Your task to perform on an android device: Open wifi settings Image 0: 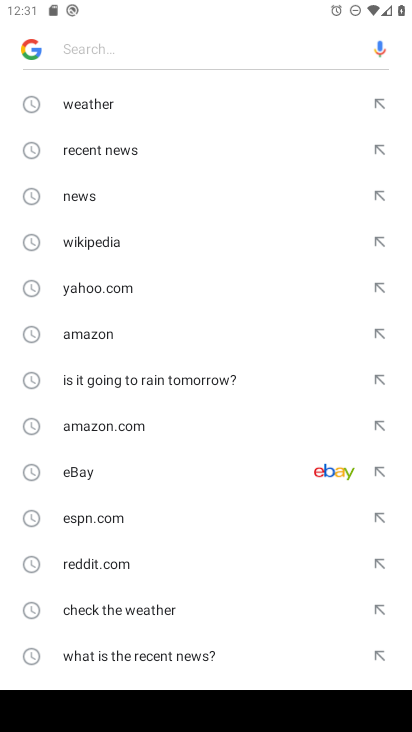
Step 0: press home button
Your task to perform on an android device: Open wifi settings Image 1: 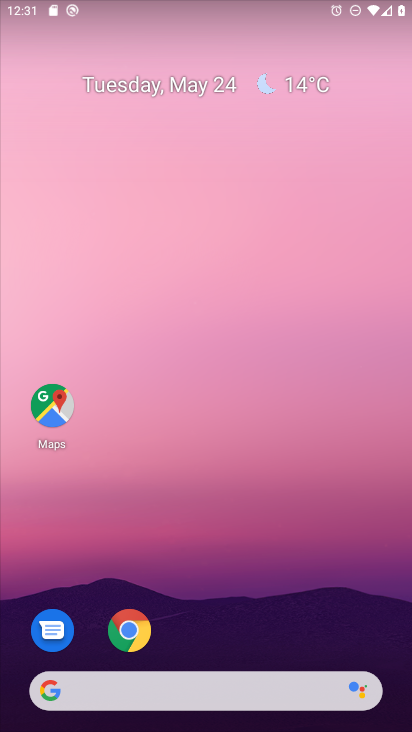
Step 1: drag from (378, 629) to (366, 85)
Your task to perform on an android device: Open wifi settings Image 2: 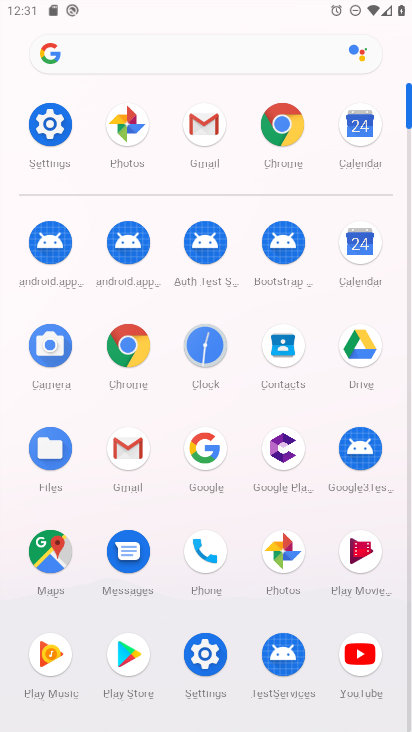
Step 2: click (45, 136)
Your task to perform on an android device: Open wifi settings Image 3: 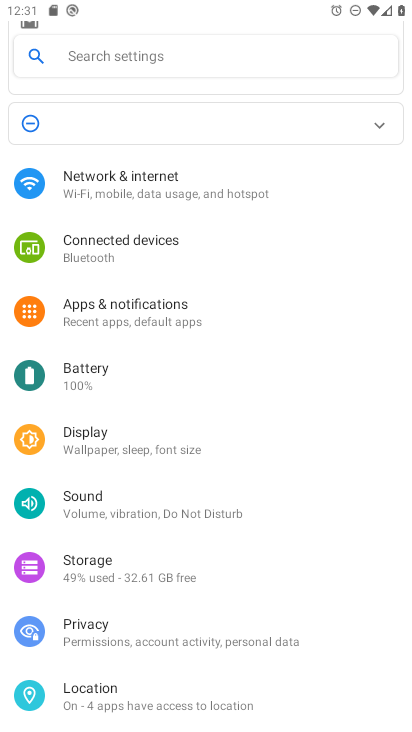
Step 3: drag from (294, 217) to (295, 423)
Your task to perform on an android device: Open wifi settings Image 4: 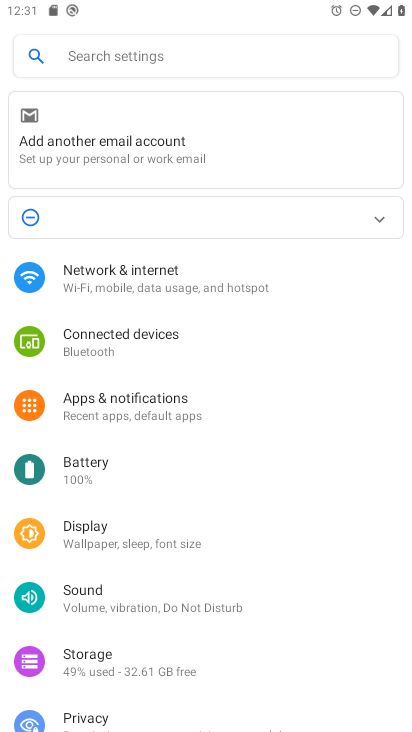
Step 4: click (205, 282)
Your task to perform on an android device: Open wifi settings Image 5: 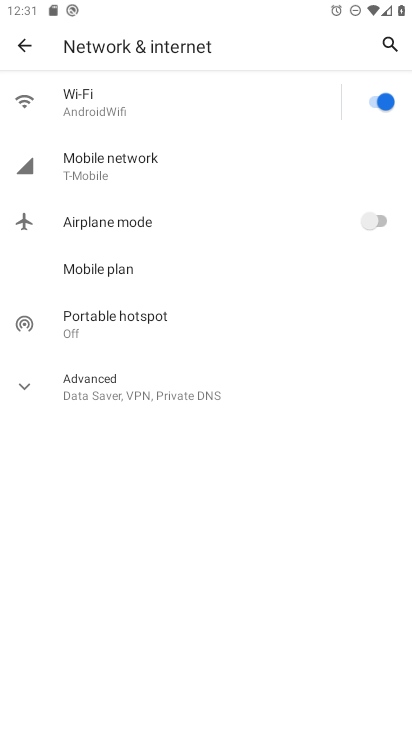
Step 5: task complete